Your task to perform on an android device: toggle show notifications on the lock screen Image 0: 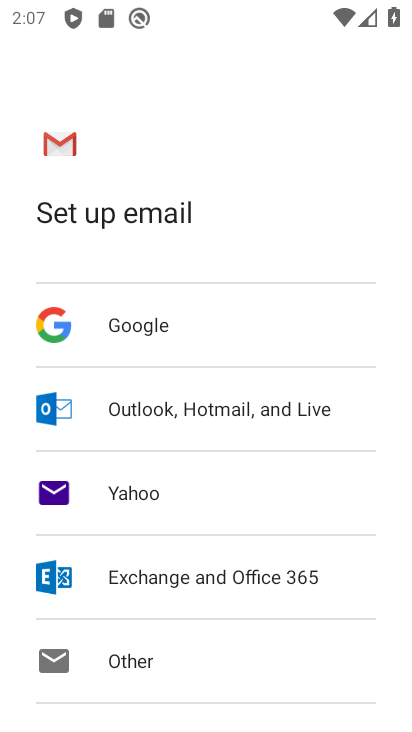
Step 0: press home button
Your task to perform on an android device: toggle show notifications on the lock screen Image 1: 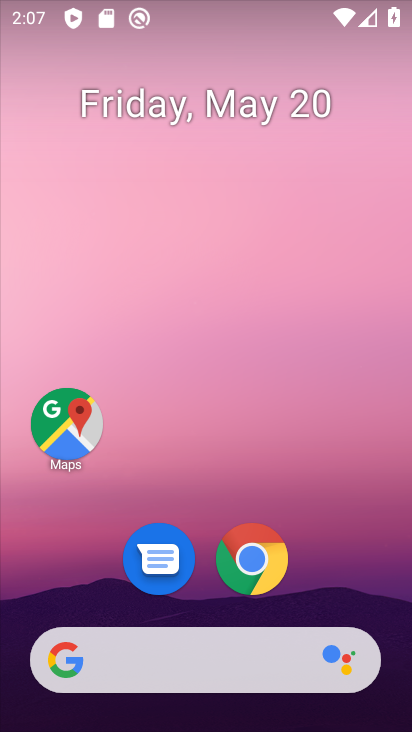
Step 1: drag from (255, 473) to (268, 141)
Your task to perform on an android device: toggle show notifications on the lock screen Image 2: 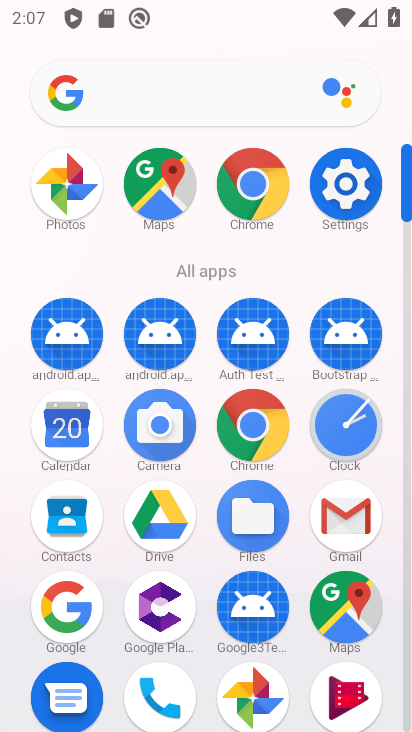
Step 2: click (341, 185)
Your task to perform on an android device: toggle show notifications on the lock screen Image 3: 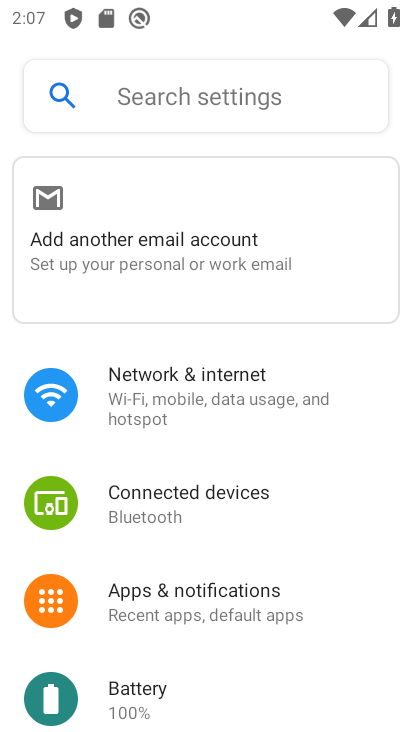
Step 3: click (206, 594)
Your task to perform on an android device: toggle show notifications on the lock screen Image 4: 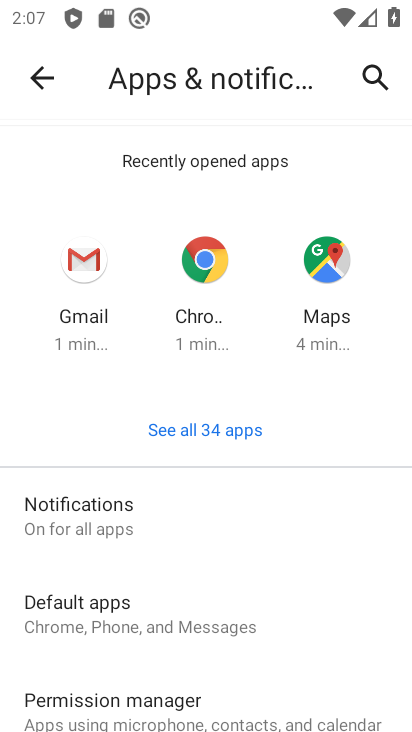
Step 4: click (206, 521)
Your task to perform on an android device: toggle show notifications on the lock screen Image 5: 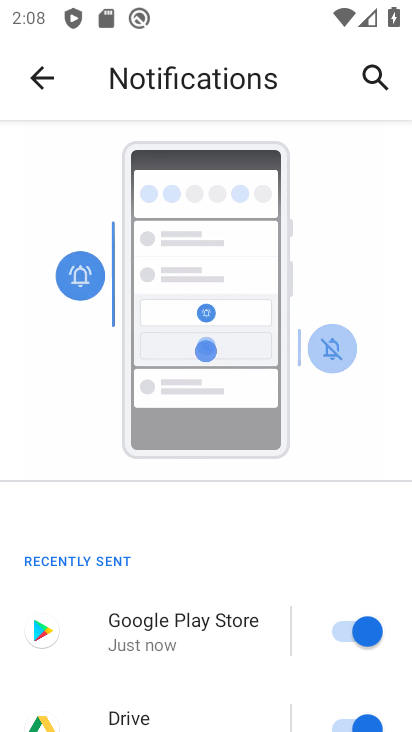
Step 5: drag from (211, 557) to (229, 258)
Your task to perform on an android device: toggle show notifications on the lock screen Image 6: 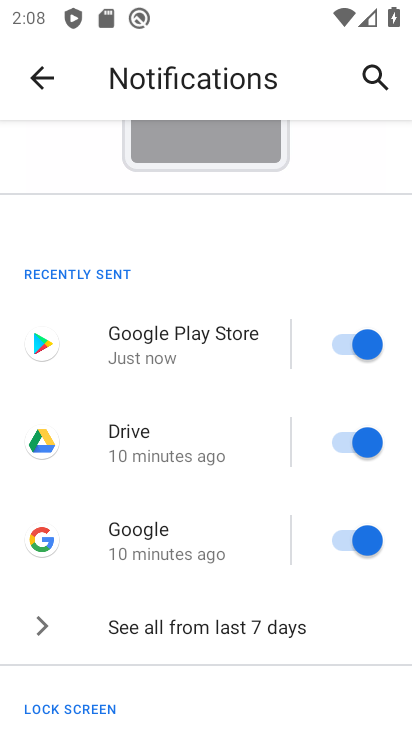
Step 6: drag from (228, 502) to (226, 216)
Your task to perform on an android device: toggle show notifications on the lock screen Image 7: 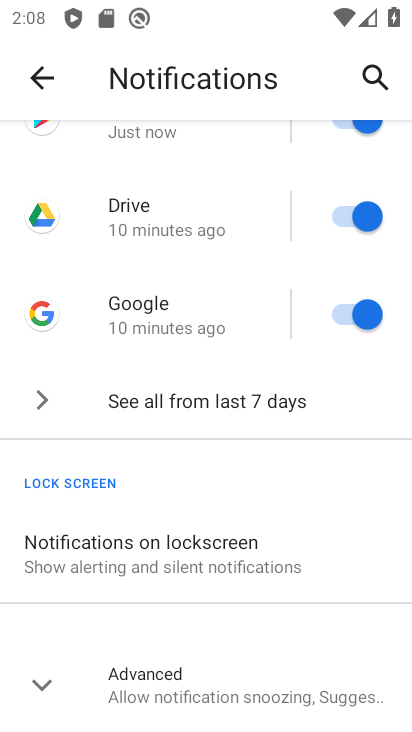
Step 7: click (207, 554)
Your task to perform on an android device: toggle show notifications on the lock screen Image 8: 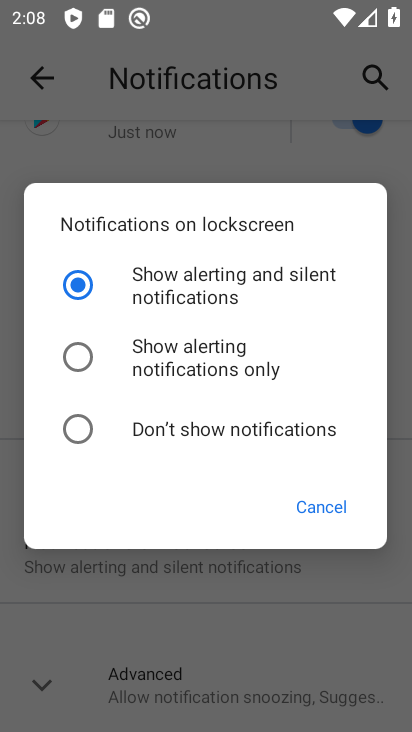
Step 8: click (78, 423)
Your task to perform on an android device: toggle show notifications on the lock screen Image 9: 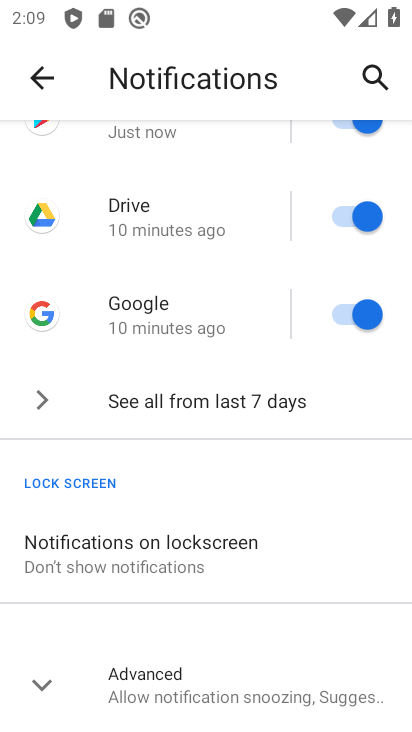
Step 9: task complete